Your task to perform on an android device: What's US dollar exchange rate against the British Pound? Image 0: 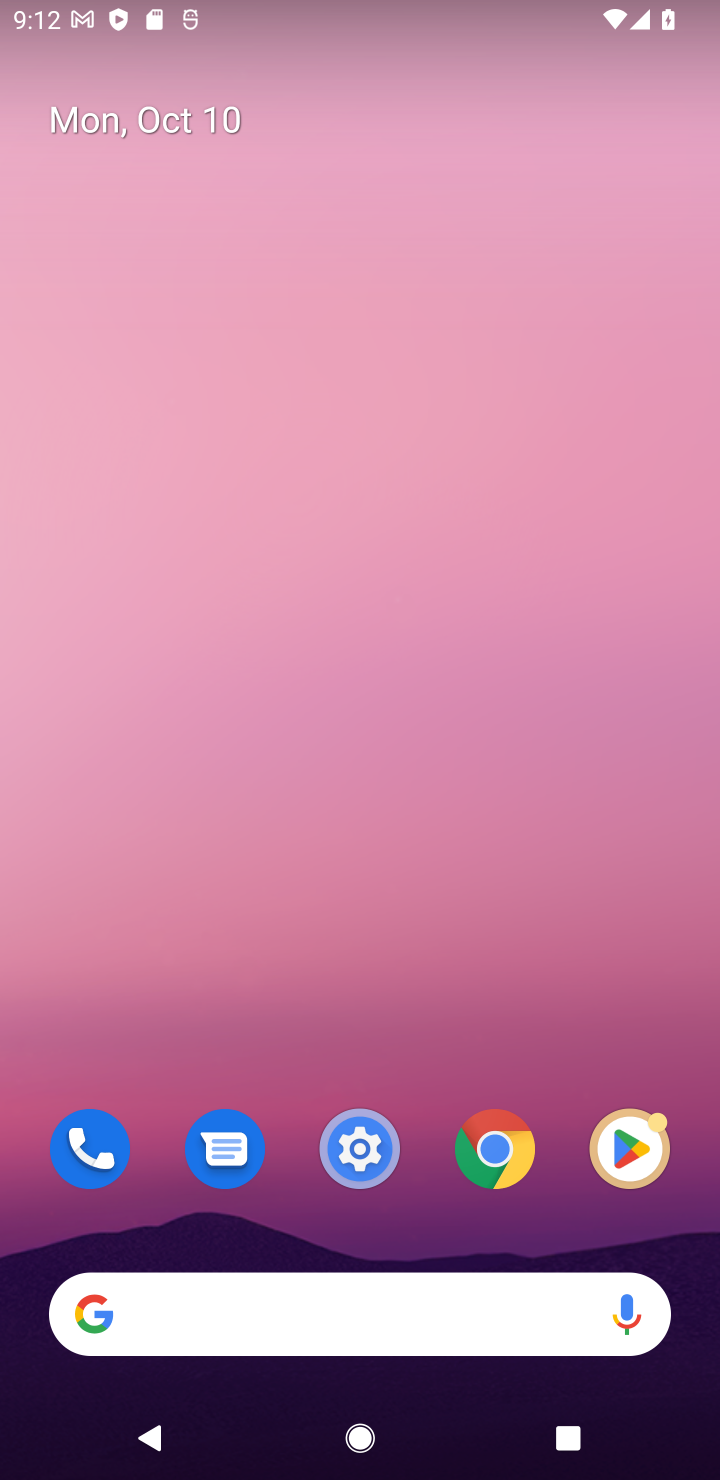
Step 0: click (259, 1338)
Your task to perform on an android device: What's US dollar exchange rate against the British Pound? Image 1: 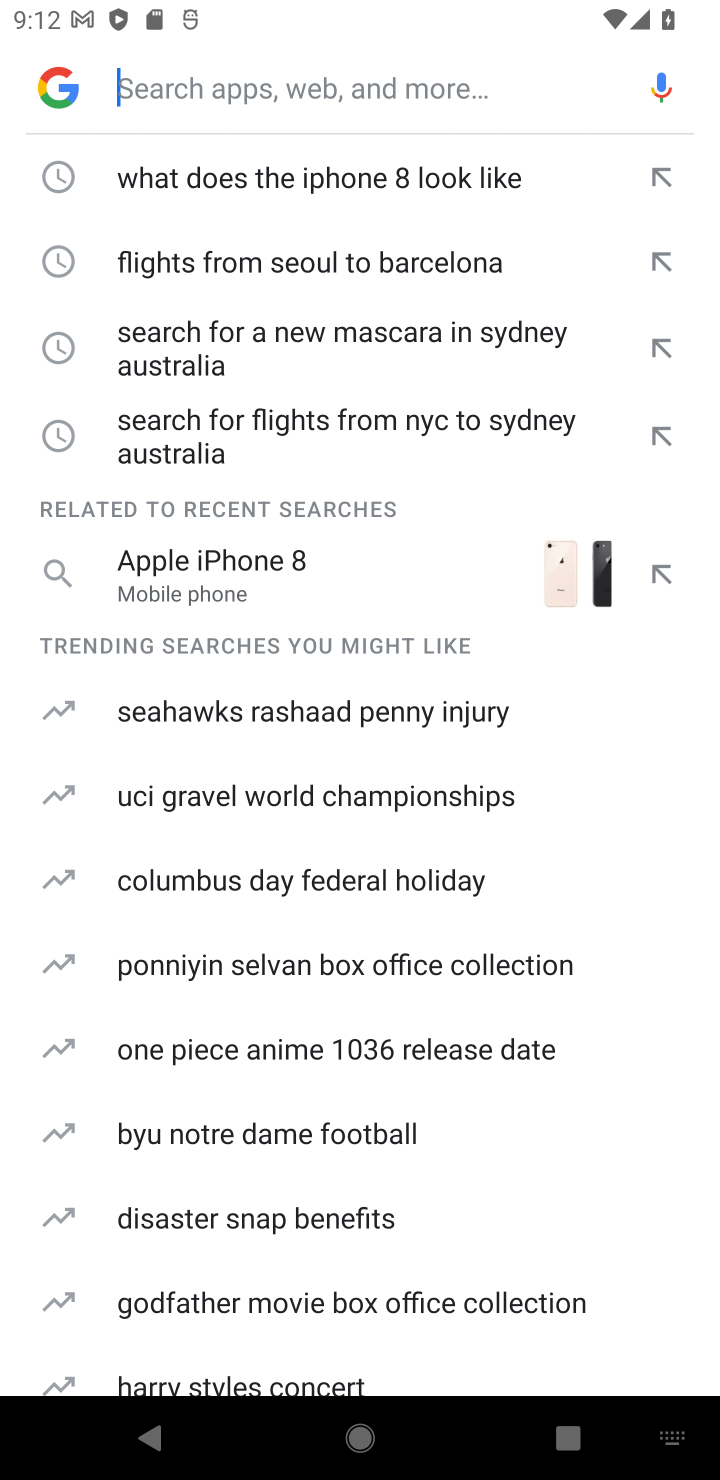
Step 1: type "What's US dollar exchange rate against the British Pound?"
Your task to perform on an android device: What's US dollar exchange rate against the British Pound? Image 2: 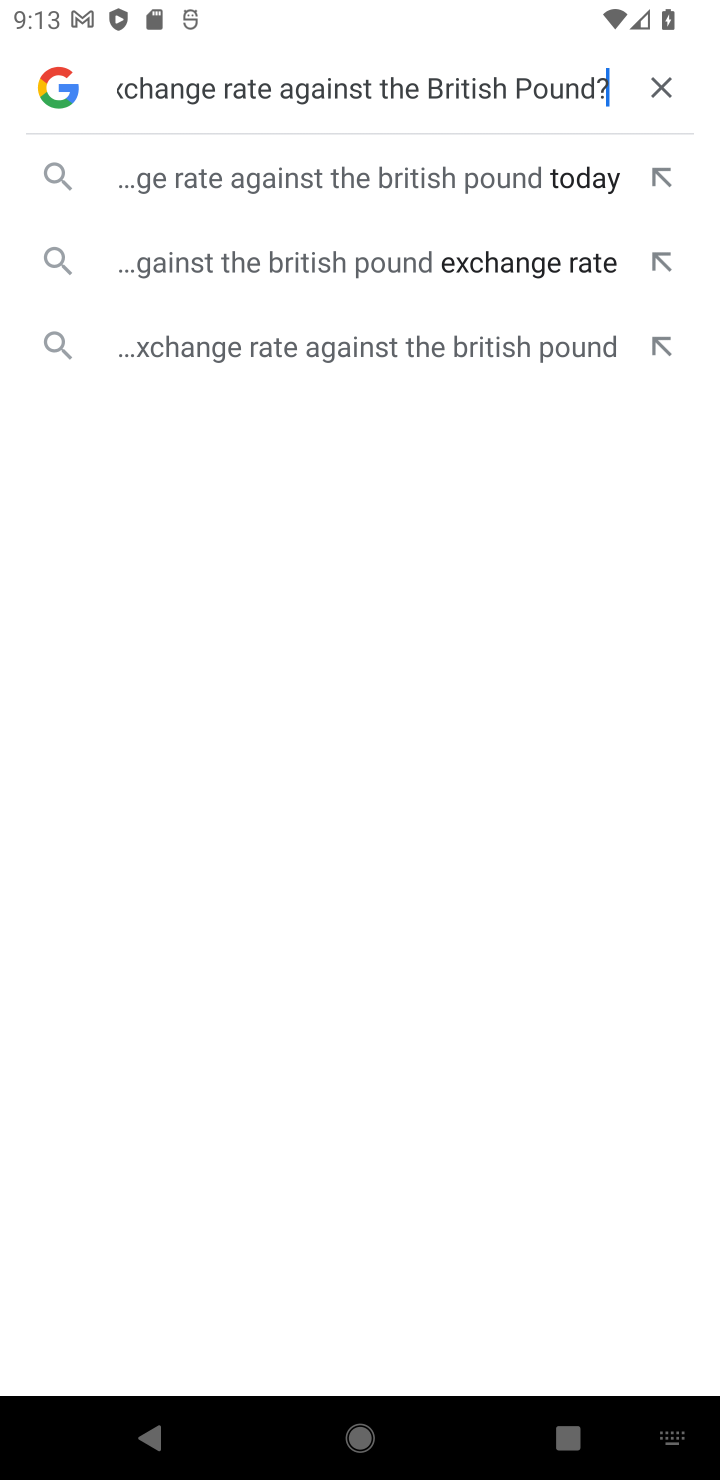
Step 2: click (335, 180)
Your task to perform on an android device: What's US dollar exchange rate against the British Pound? Image 3: 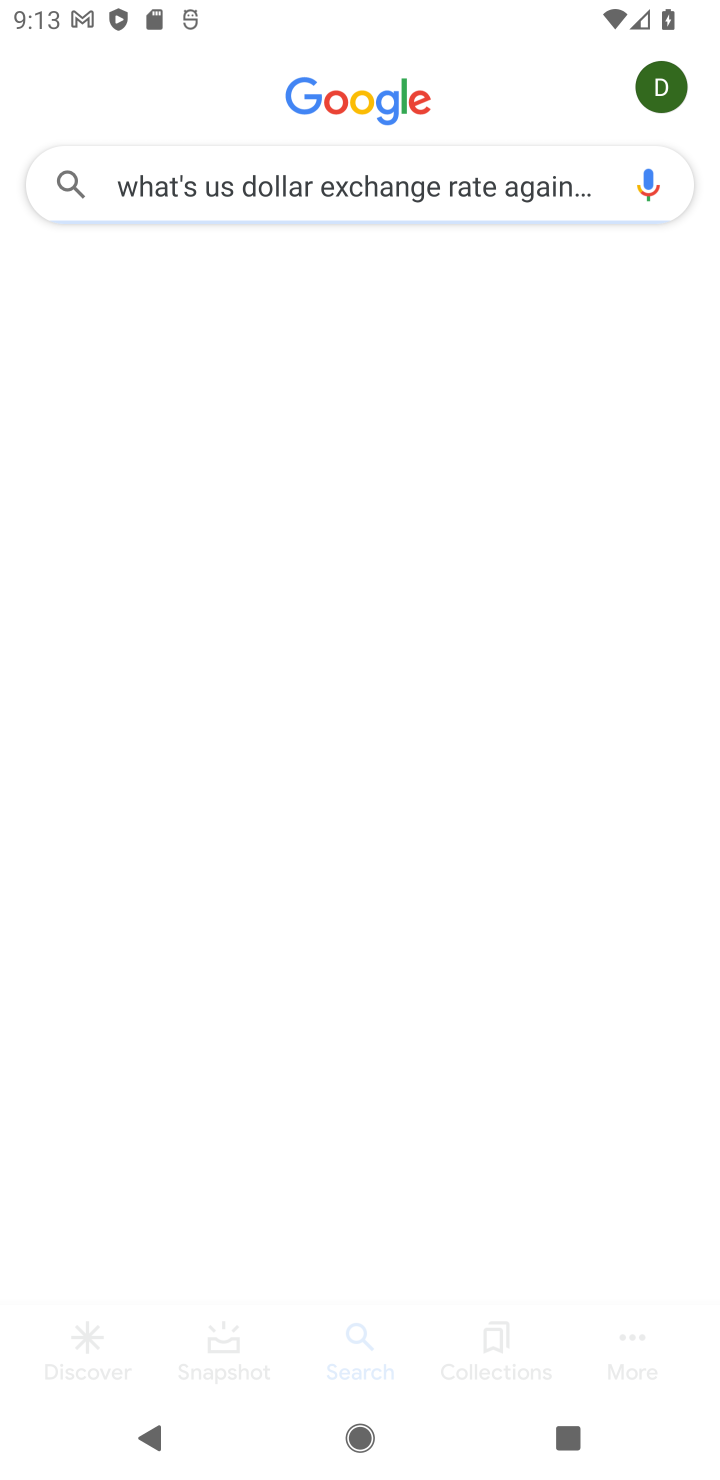
Step 3: task complete